Your task to perform on an android device: Open the calendar and show me this week's events? Image 0: 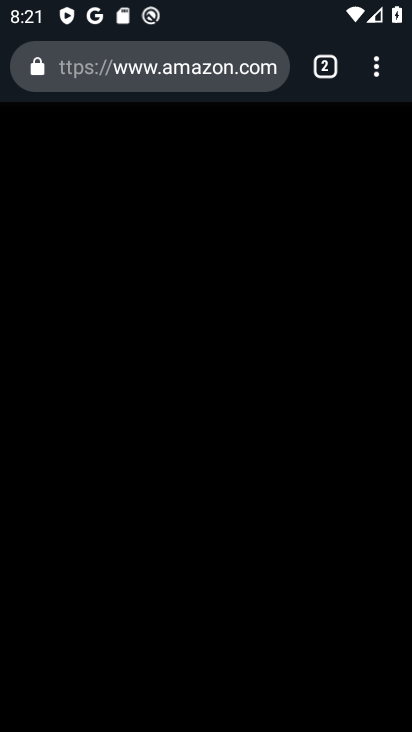
Step 0: press home button
Your task to perform on an android device: Open the calendar and show me this week's events? Image 1: 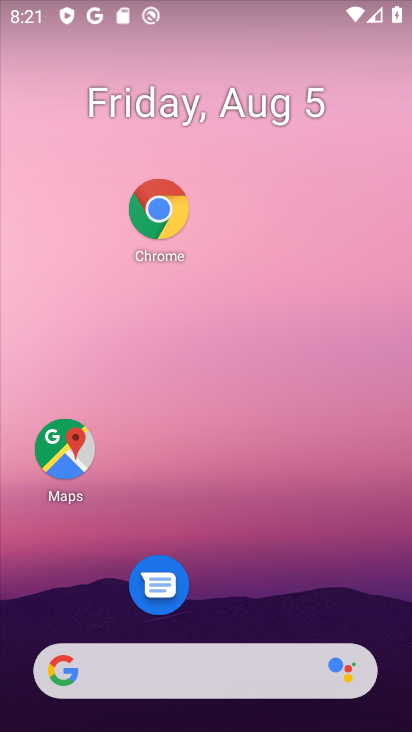
Step 1: drag from (265, 629) to (162, 4)
Your task to perform on an android device: Open the calendar and show me this week's events? Image 2: 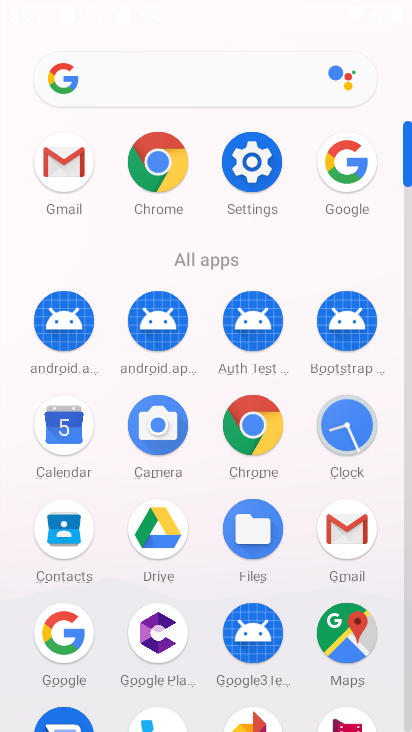
Step 2: click (44, 421)
Your task to perform on an android device: Open the calendar and show me this week's events? Image 3: 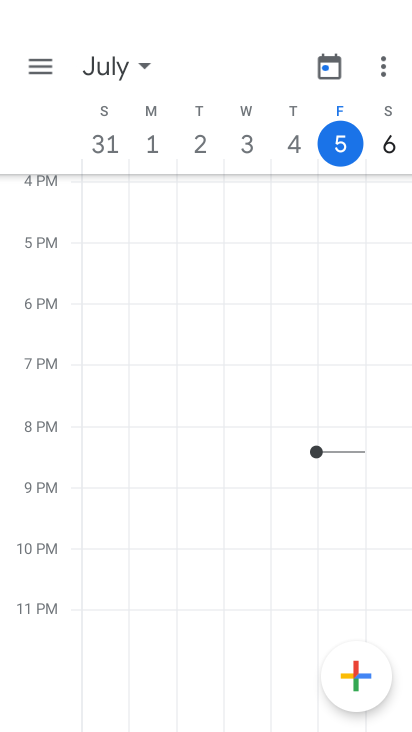
Step 3: task complete